Your task to perform on an android device: Go to Google maps Image 0: 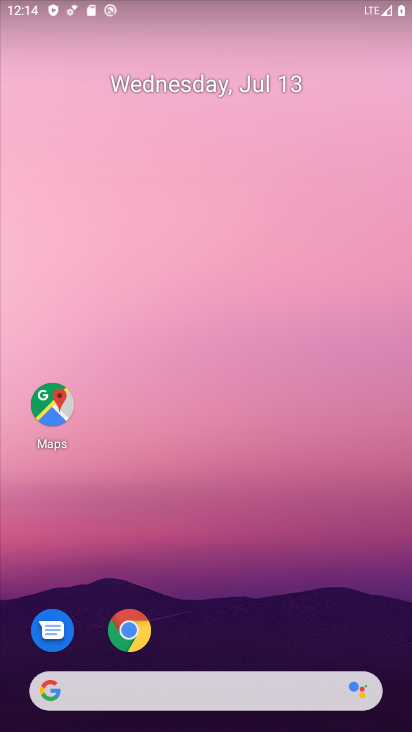
Step 0: click (62, 403)
Your task to perform on an android device: Go to Google maps Image 1: 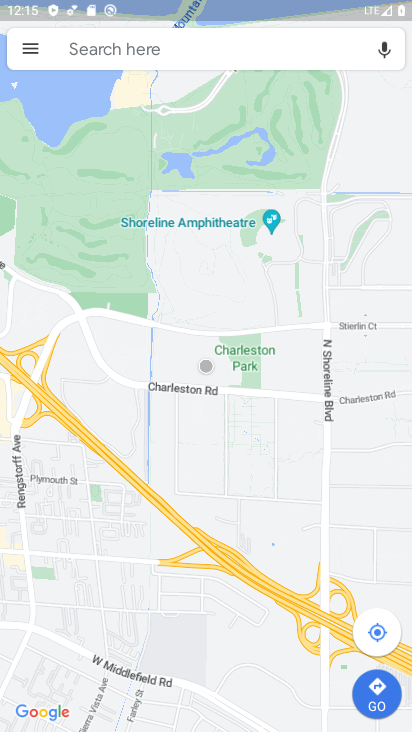
Step 1: task complete